Your task to perform on an android device: check the backup settings in the google photos Image 0: 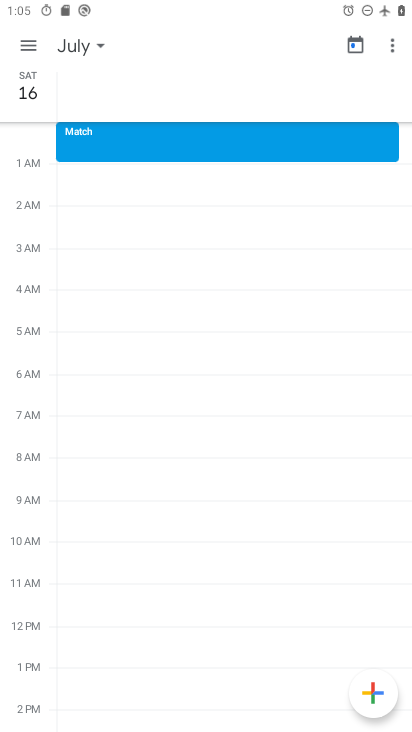
Step 0: press home button
Your task to perform on an android device: check the backup settings in the google photos Image 1: 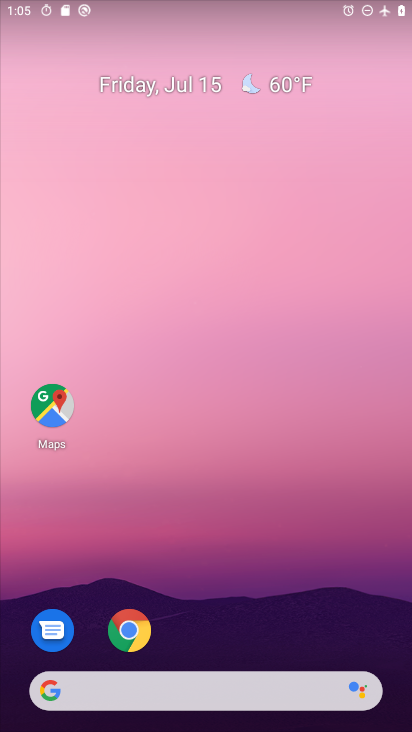
Step 1: drag from (173, 449) to (171, 257)
Your task to perform on an android device: check the backup settings in the google photos Image 2: 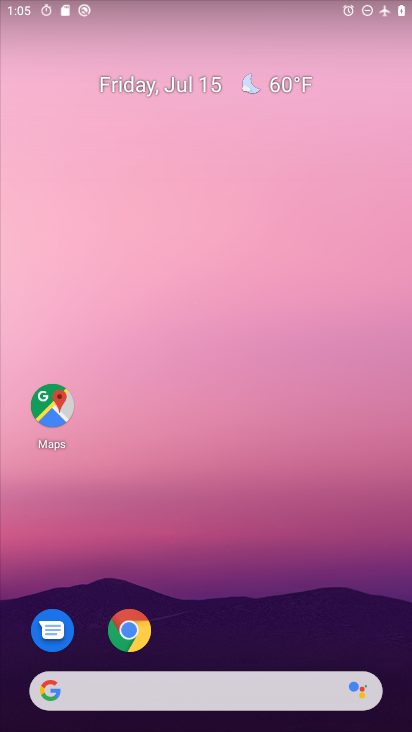
Step 2: drag from (190, 538) to (243, 51)
Your task to perform on an android device: check the backup settings in the google photos Image 3: 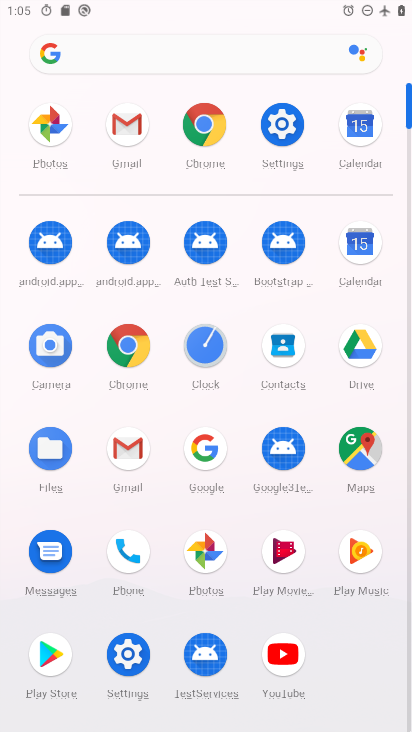
Step 3: click (273, 122)
Your task to perform on an android device: check the backup settings in the google photos Image 4: 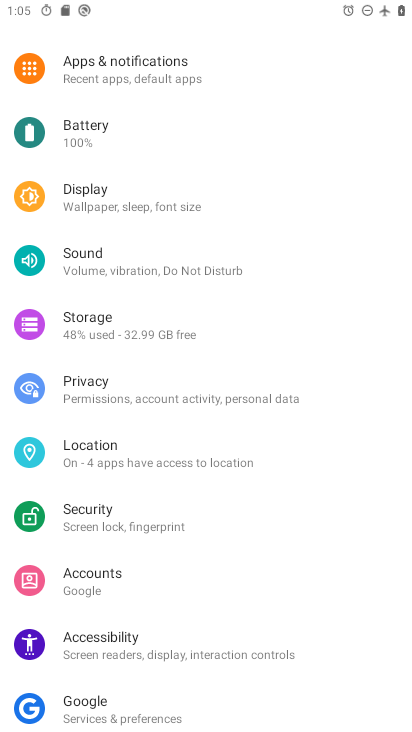
Step 4: press back button
Your task to perform on an android device: check the backup settings in the google photos Image 5: 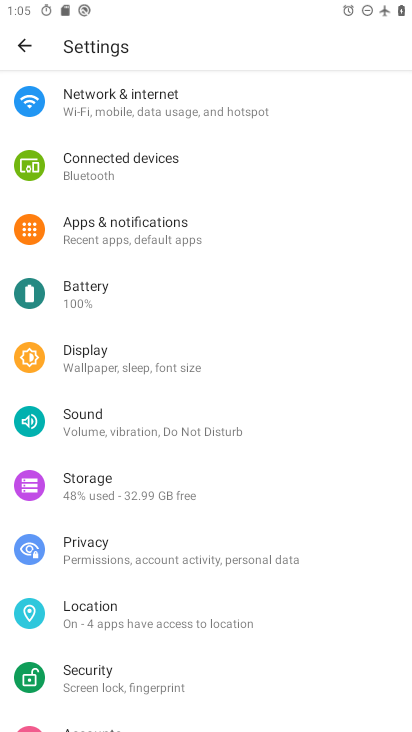
Step 5: press back button
Your task to perform on an android device: check the backup settings in the google photos Image 6: 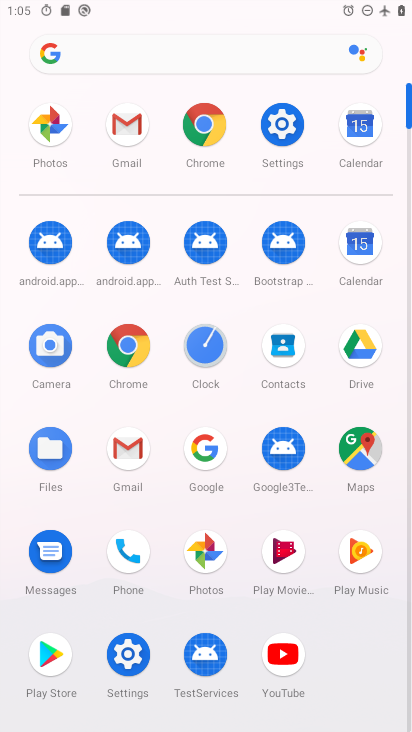
Step 6: click (196, 555)
Your task to perform on an android device: check the backup settings in the google photos Image 7: 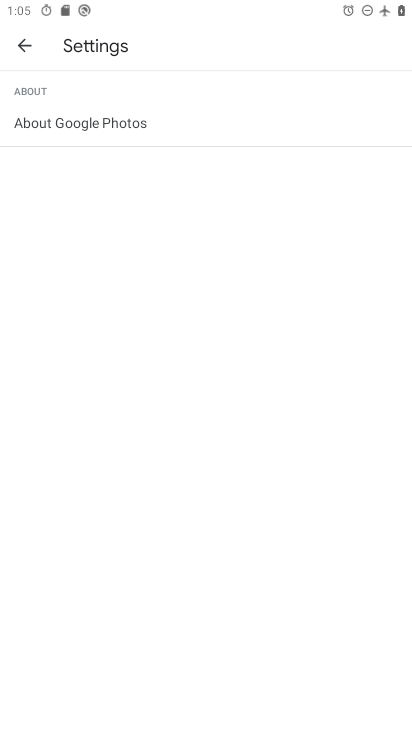
Step 7: click (22, 49)
Your task to perform on an android device: check the backup settings in the google photos Image 8: 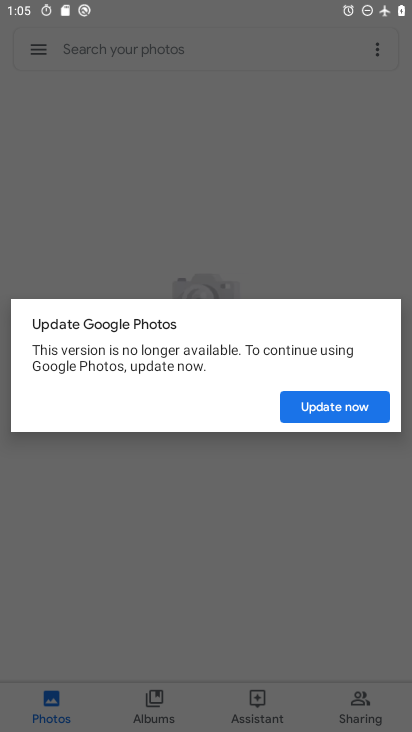
Step 8: click (286, 470)
Your task to perform on an android device: check the backup settings in the google photos Image 9: 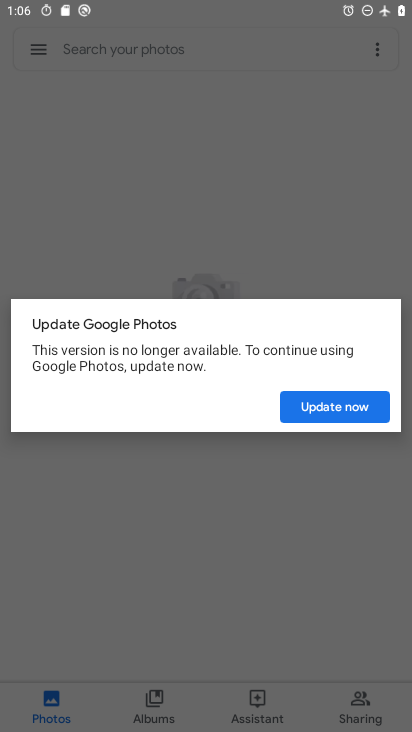
Step 9: click (316, 417)
Your task to perform on an android device: check the backup settings in the google photos Image 10: 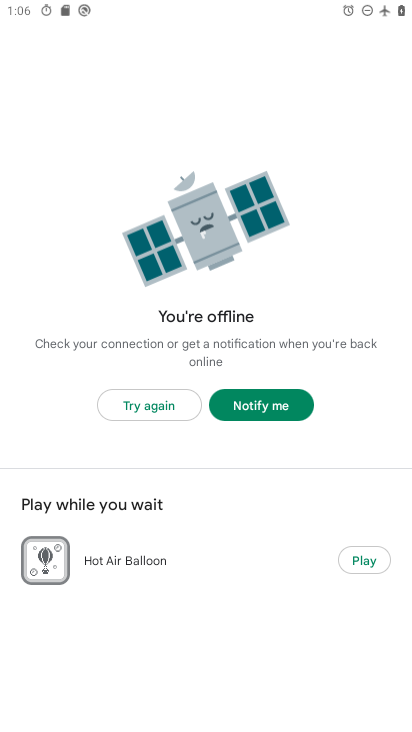
Step 10: task complete